Your task to perform on an android device: Open the calendar app, open the side menu, and click the "Day" option Image 0: 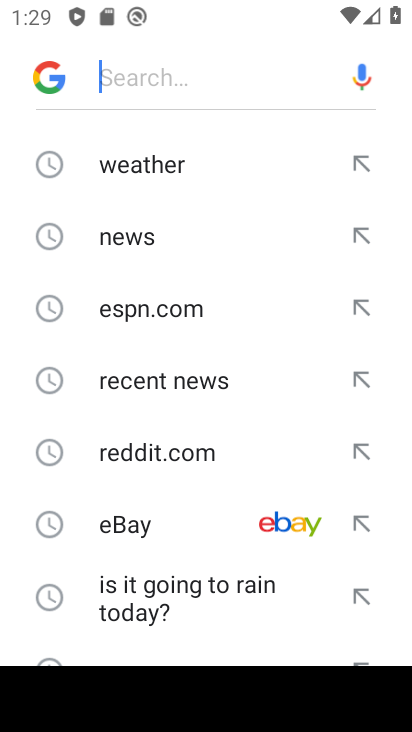
Step 0: press home button
Your task to perform on an android device: Open the calendar app, open the side menu, and click the "Day" option Image 1: 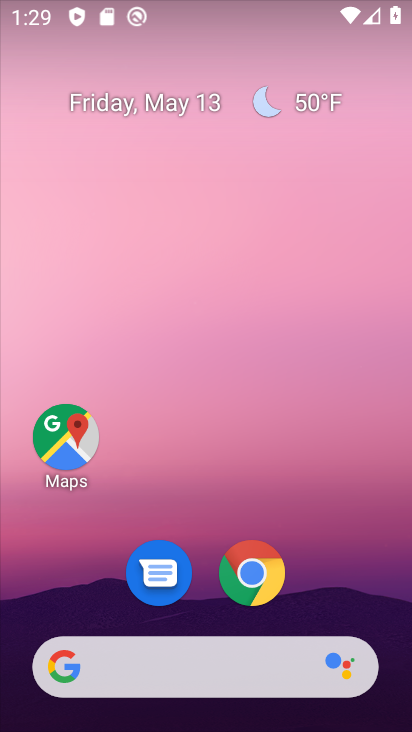
Step 1: drag from (327, 577) to (315, 50)
Your task to perform on an android device: Open the calendar app, open the side menu, and click the "Day" option Image 2: 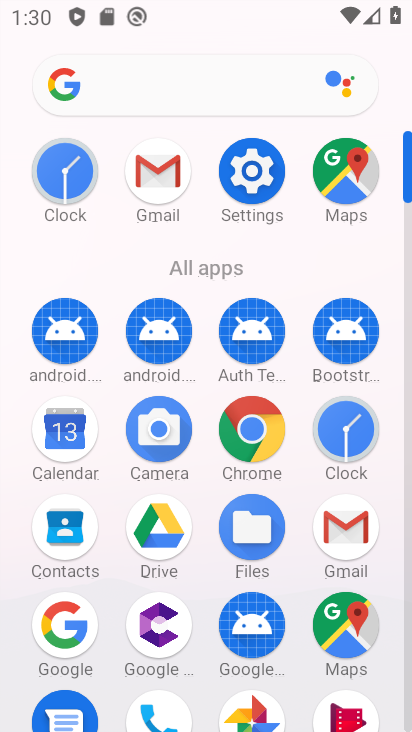
Step 2: click (53, 451)
Your task to perform on an android device: Open the calendar app, open the side menu, and click the "Day" option Image 3: 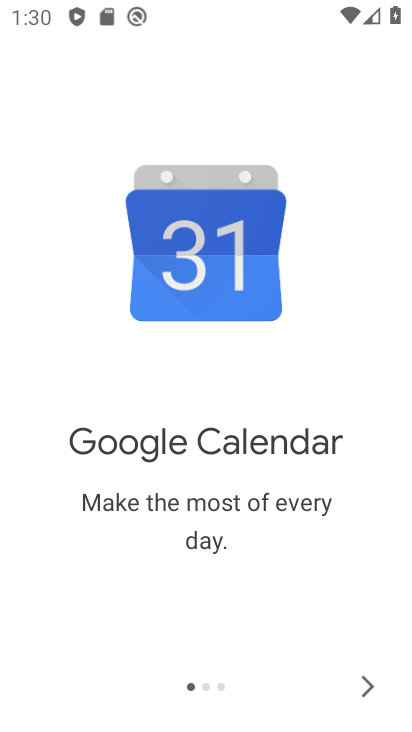
Step 3: click (368, 692)
Your task to perform on an android device: Open the calendar app, open the side menu, and click the "Day" option Image 4: 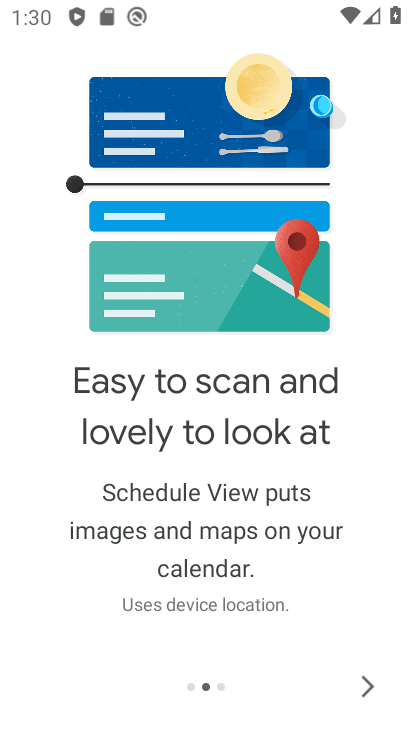
Step 4: click (368, 692)
Your task to perform on an android device: Open the calendar app, open the side menu, and click the "Day" option Image 5: 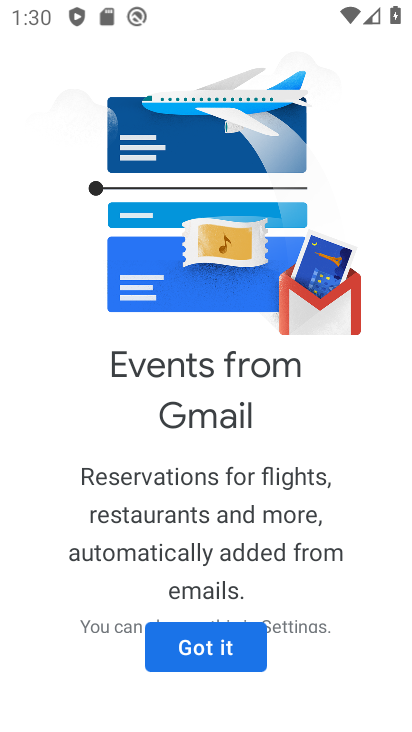
Step 5: click (244, 645)
Your task to perform on an android device: Open the calendar app, open the side menu, and click the "Day" option Image 6: 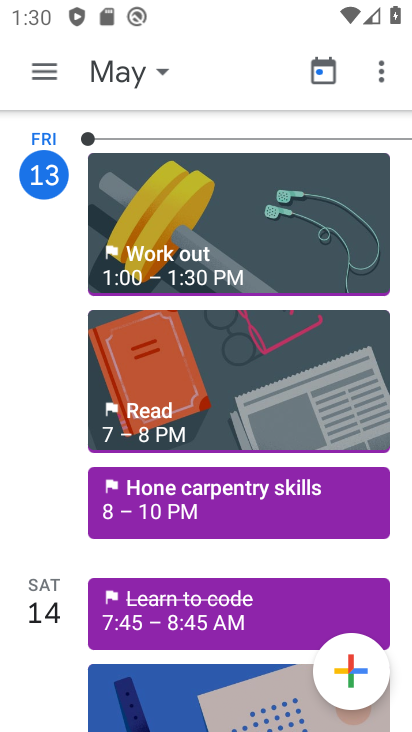
Step 6: click (36, 70)
Your task to perform on an android device: Open the calendar app, open the side menu, and click the "Day" option Image 7: 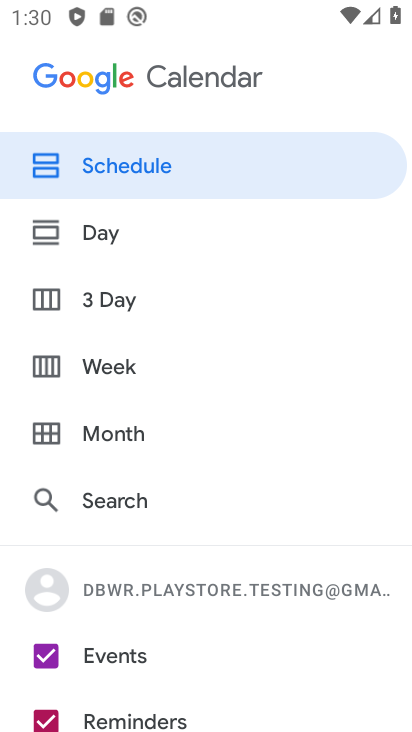
Step 7: click (116, 235)
Your task to perform on an android device: Open the calendar app, open the side menu, and click the "Day" option Image 8: 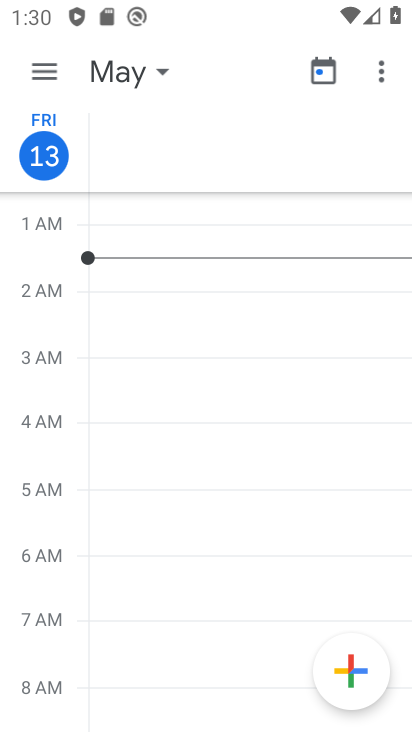
Step 8: task complete